Your task to perform on an android device: Open CNN.com Image 0: 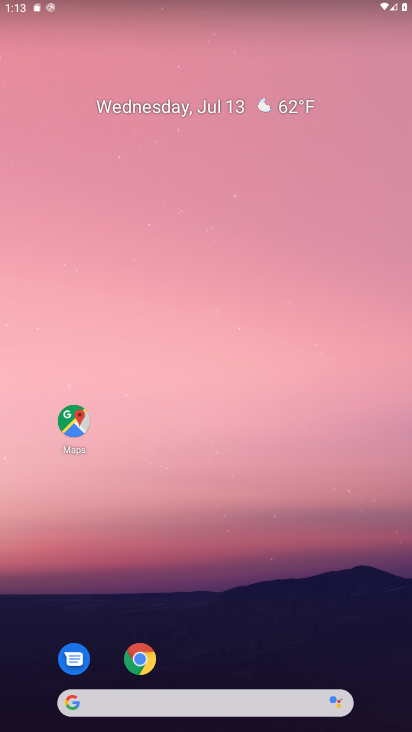
Step 0: drag from (250, 616) to (278, 24)
Your task to perform on an android device: Open CNN.com Image 1: 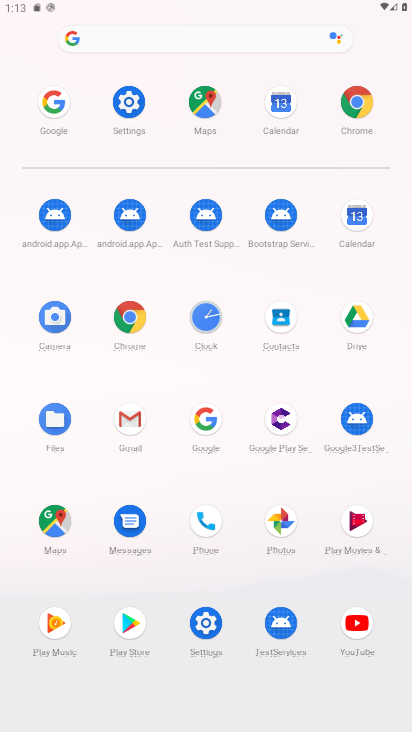
Step 1: click (370, 102)
Your task to perform on an android device: Open CNN.com Image 2: 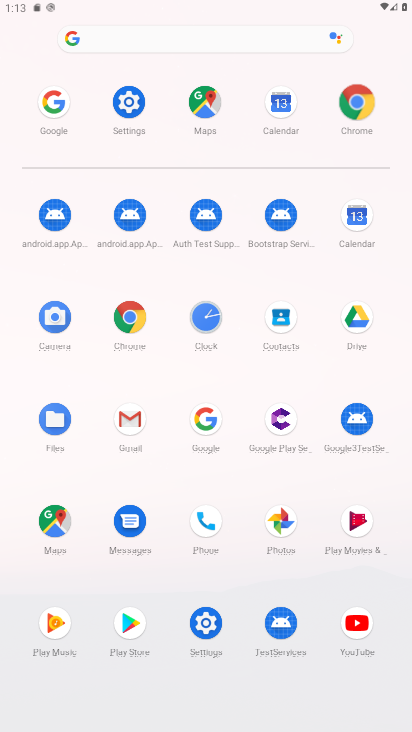
Step 2: click (367, 101)
Your task to perform on an android device: Open CNN.com Image 3: 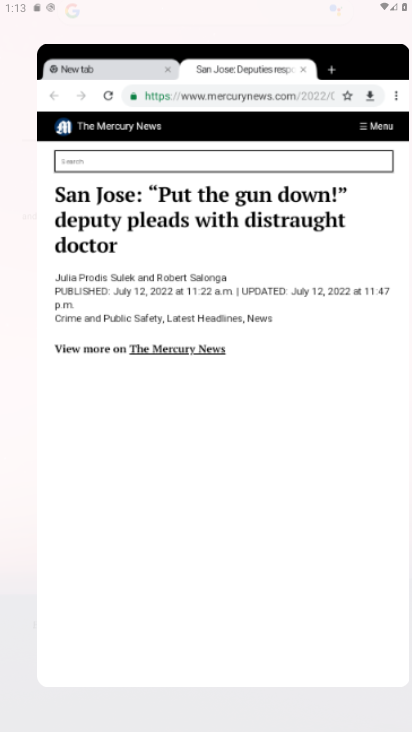
Step 3: click (367, 101)
Your task to perform on an android device: Open CNN.com Image 4: 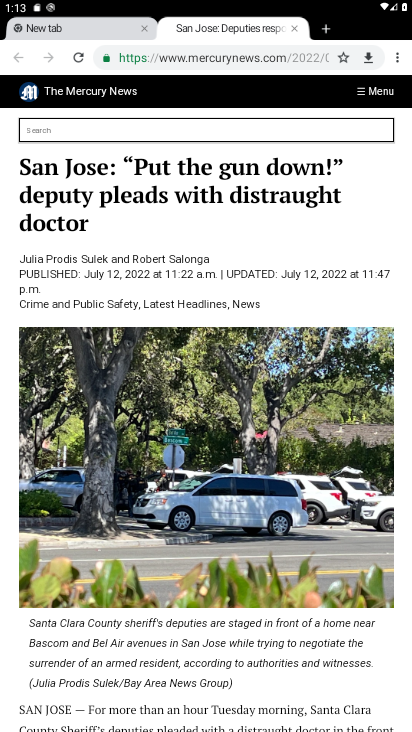
Step 4: click (141, 52)
Your task to perform on an android device: Open CNN.com Image 5: 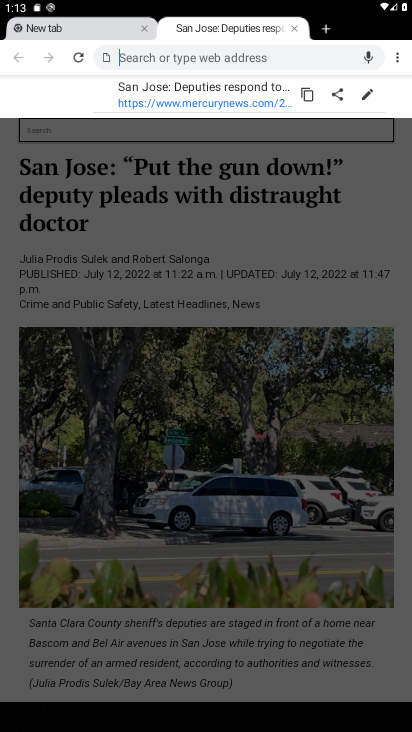
Step 5: click (141, 52)
Your task to perform on an android device: Open CNN.com Image 6: 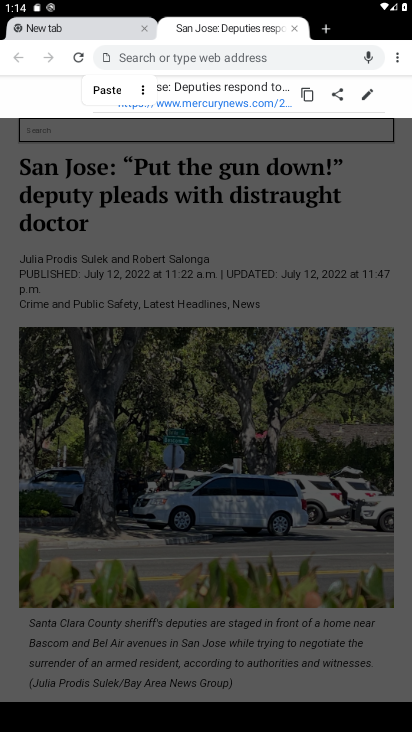
Step 6: type "cnn.com"
Your task to perform on an android device: Open CNN.com Image 7: 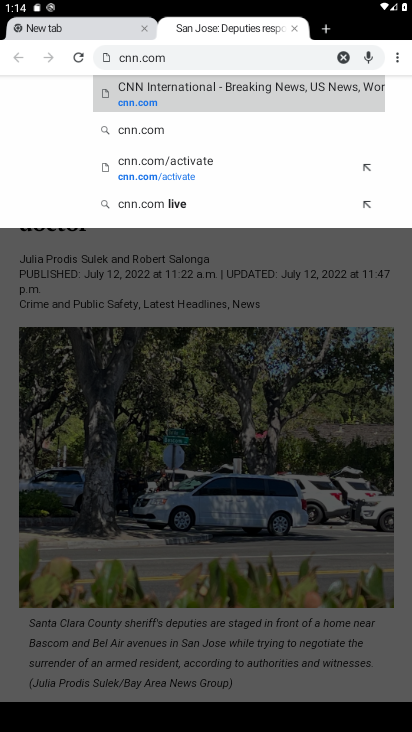
Step 7: task complete